Your task to perform on an android device: empty trash in the gmail app Image 0: 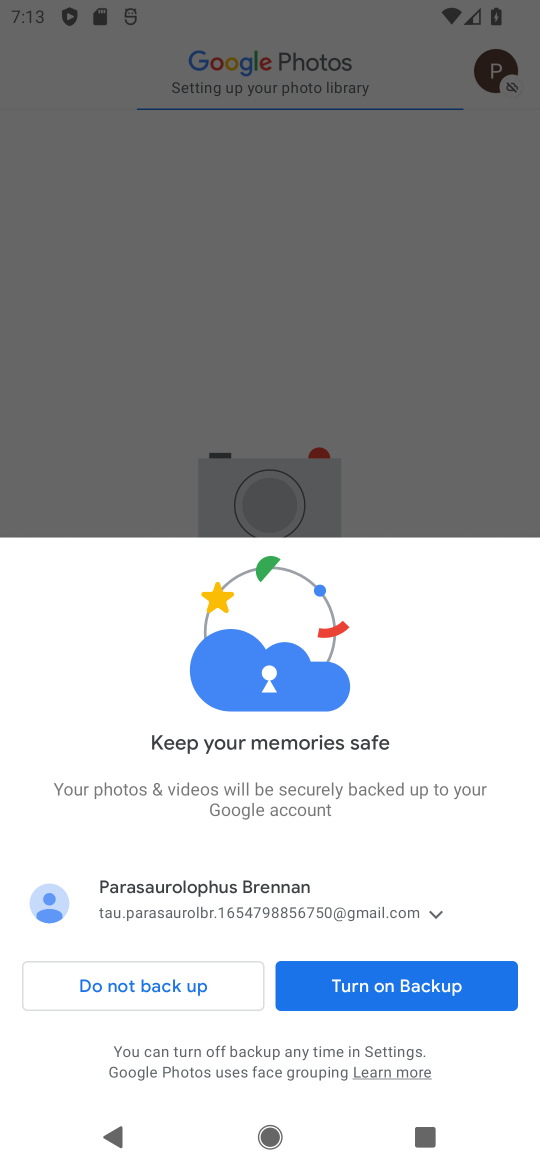
Step 0: press home button
Your task to perform on an android device: empty trash in the gmail app Image 1: 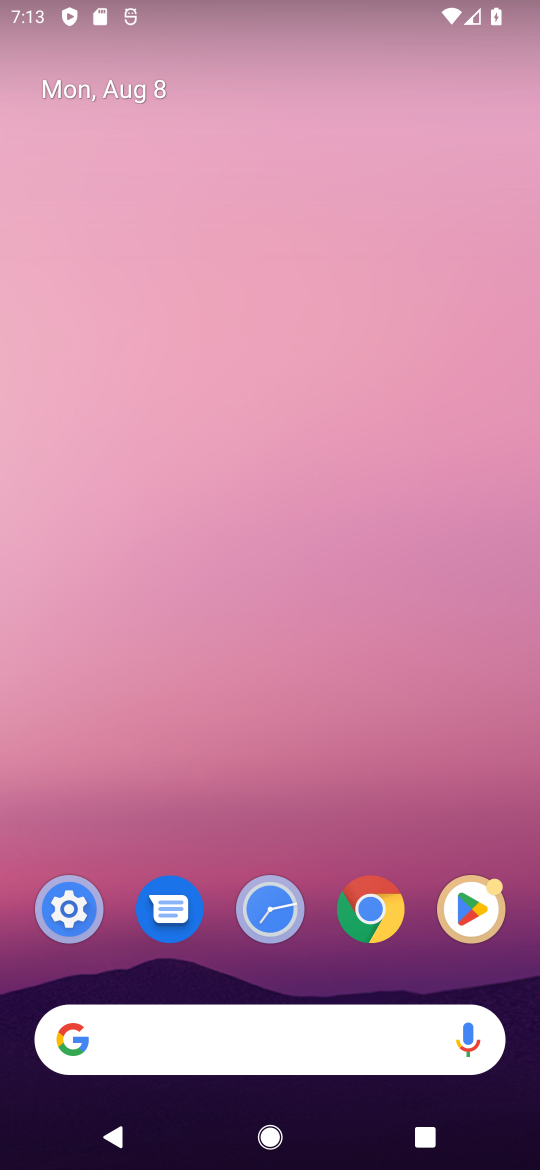
Step 1: drag from (292, 1027) to (290, 283)
Your task to perform on an android device: empty trash in the gmail app Image 2: 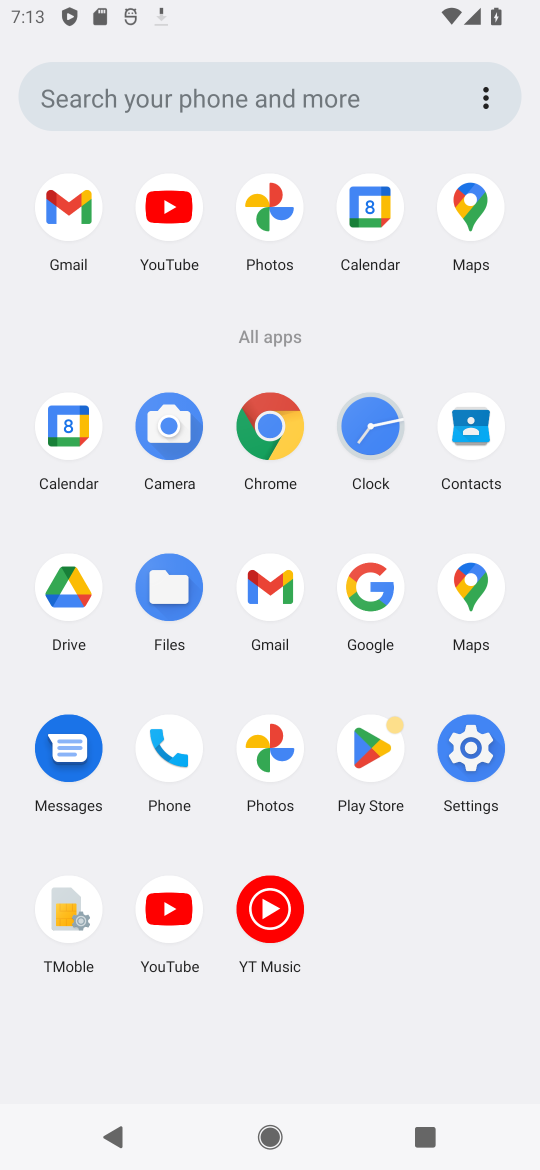
Step 2: click (273, 621)
Your task to perform on an android device: empty trash in the gmail app Image 3: 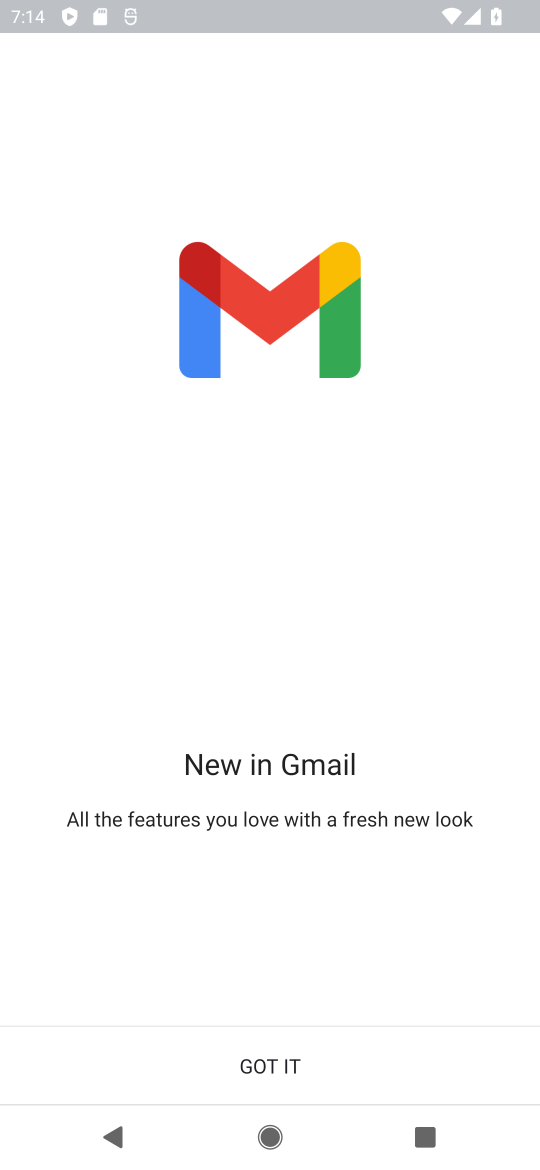
Step 3: click (353, 1084)
Your task to perform on an android device: empty trash in the gmail app Image 4: 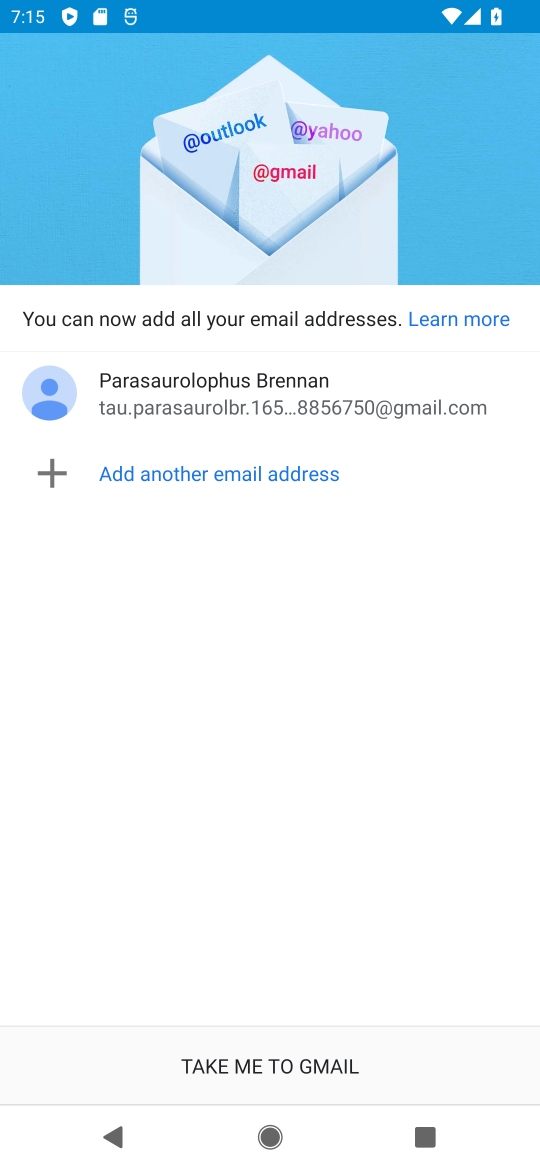
Step 4: click (355, 1062)
Your task to perform on an android device: empty trash in the gmail app Image 5: 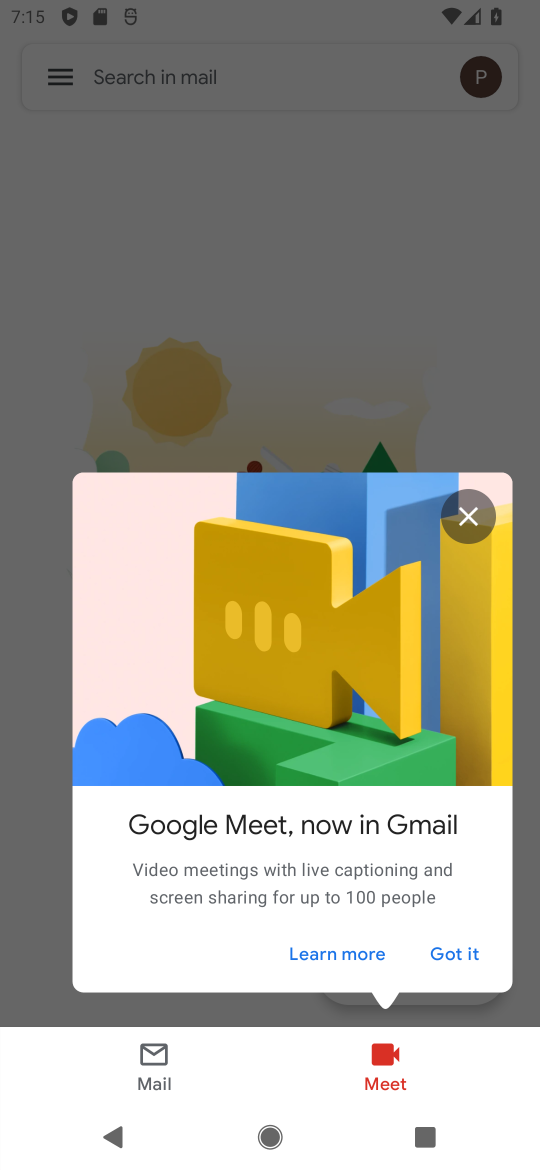
Step 5: click (465, 518)
Your task to perform on an android device: empty trash in the gmail app Image 6: 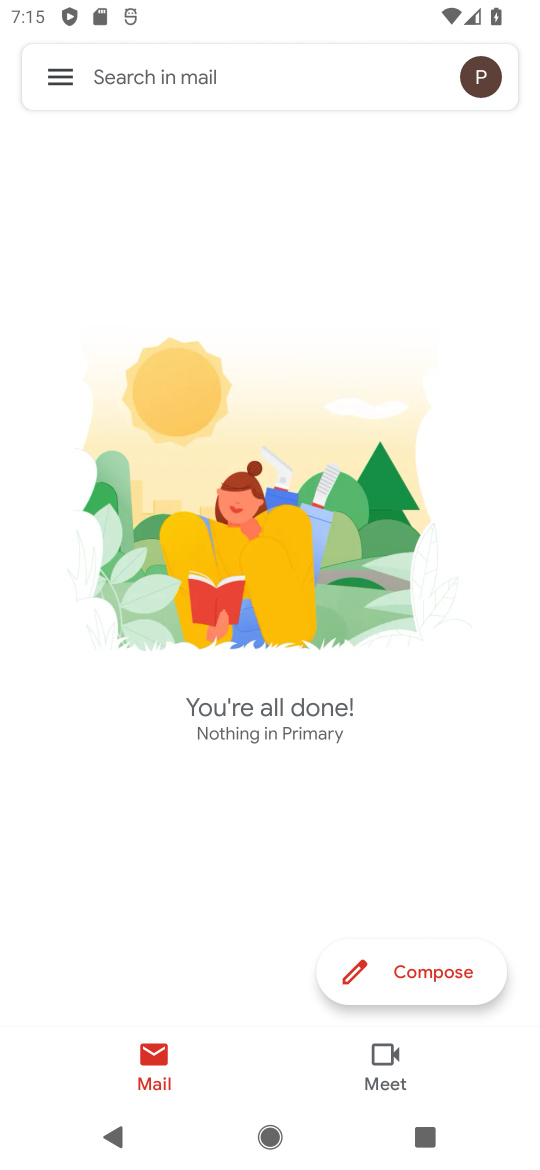
Step 6: click (51, 73)
Your task to perform on an android device: empty trash in the gmail app Image 7: 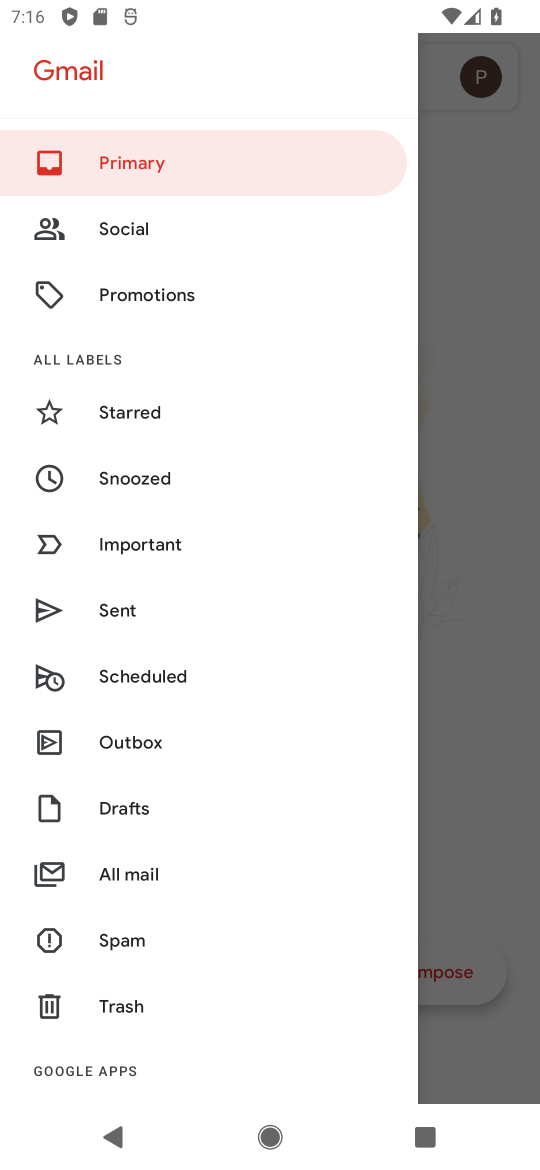
Step 7: click (128, 1000)
Your task to perform on an android device: empty trash in the gmail app Image 8: 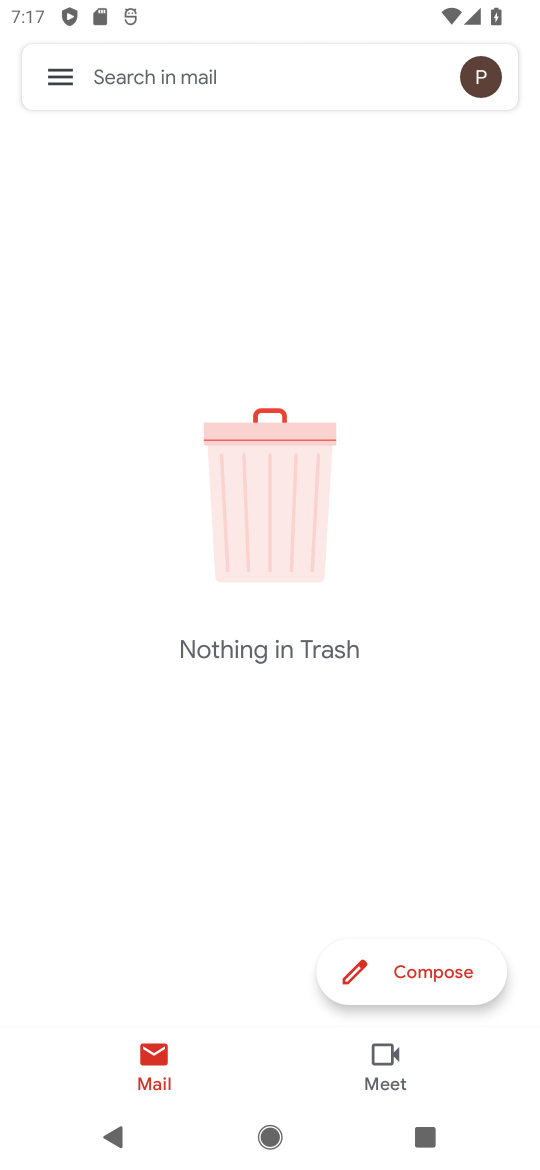
Step 8: task complete